Your task to perform on an android device: Open internet settings Image 0: 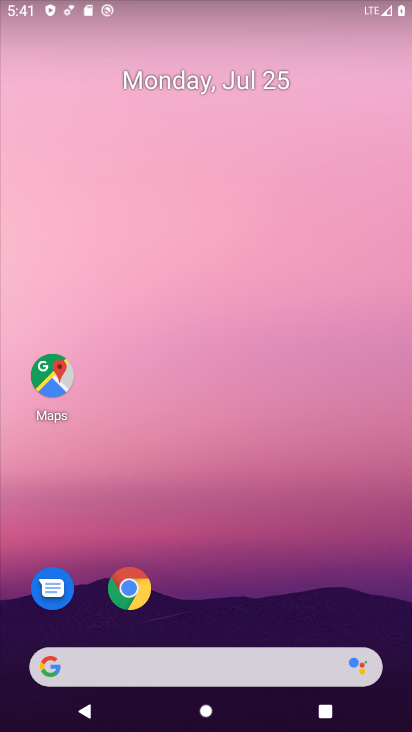
Step 0: drag from (170, 672) to (214, 4)
Your task to perform on an android device: Open internet settings Image 1: 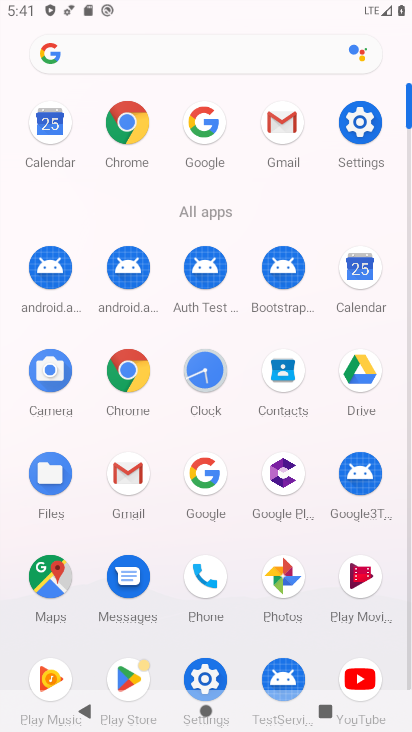
Step 1: click (359, 123)
Your task to perform on an android device: Open internet settings Image 2: 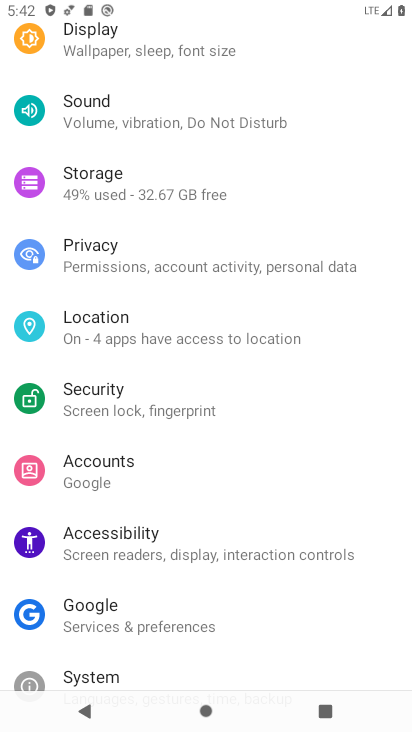
Step 2: drag from (158, 162) to (253, 586)
Your task to perform on an android device: Open internet settings Image 3: 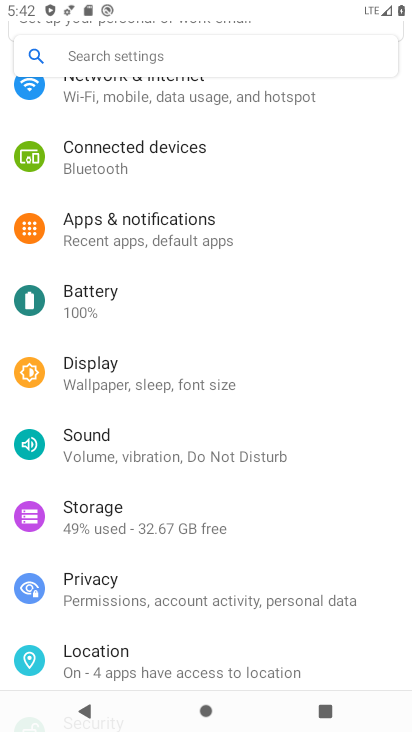
Step 3: drag from (142, 182) to (212, 382)
Your task to perform on an android device: Open internet settings Image 4: 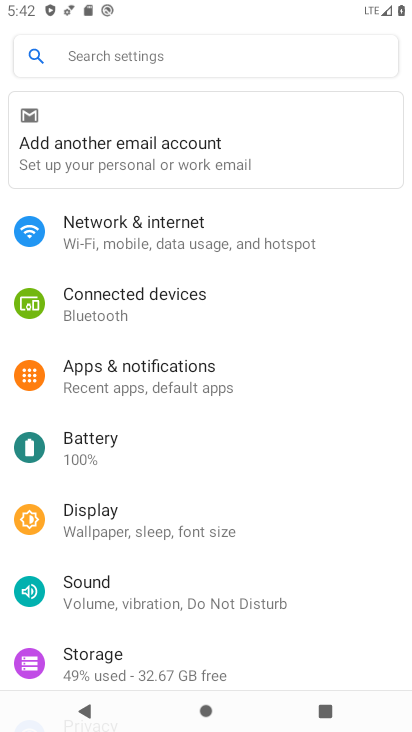
Step 4: click (164, 245)
Your task to perform on an android device: Open internet settings Image 5: 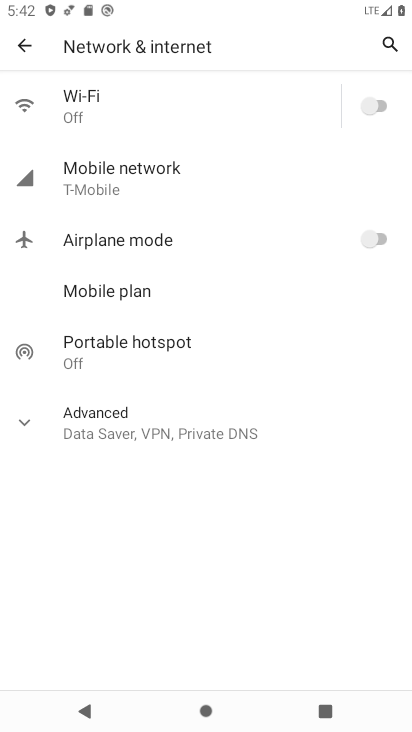
Step 5: click (78, 111)
Your task to perform on an android device: Open internet settings Image 6: 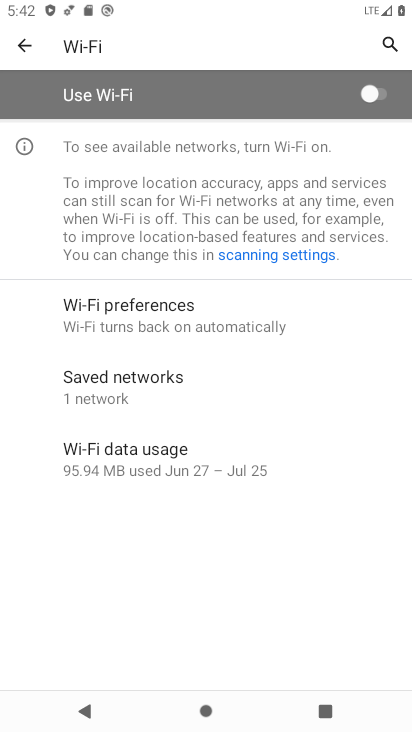
Step 6: task complete